Your task to perform on an android device: search for starred emails in the gmail app Image 0: 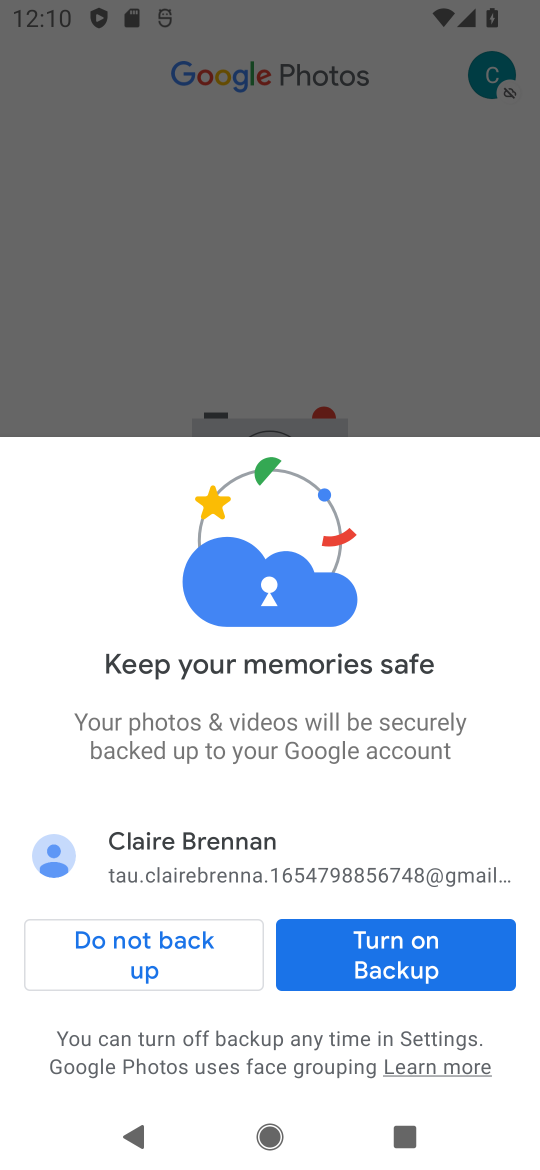
Step 0: press back button
Your task to perform on an android device: search for starred emails in the gmail app Image 1: 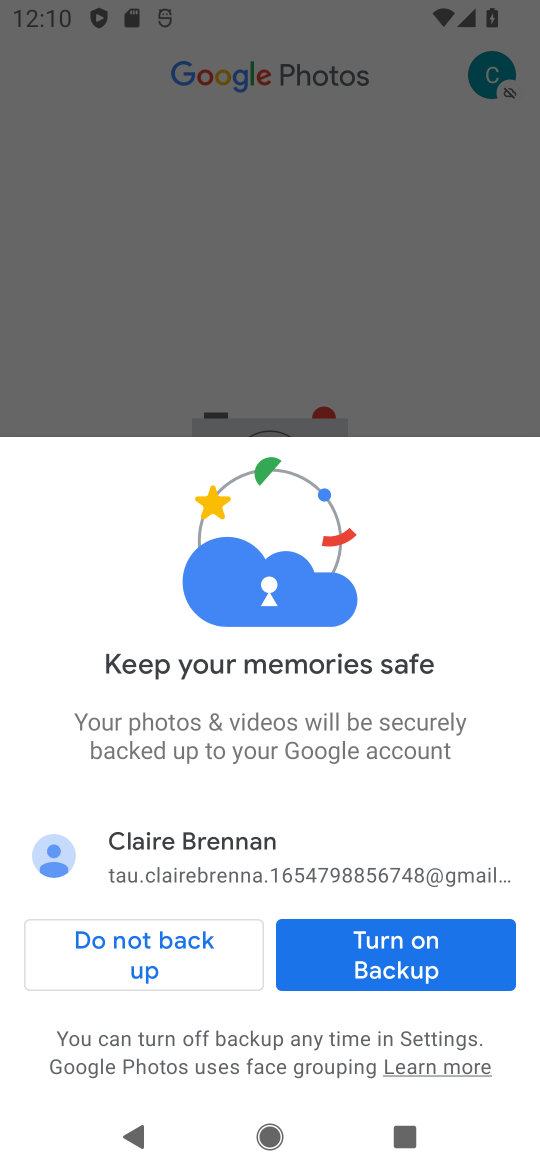
Step 1: press back button
Your task to perform on an android device: search for starred emails in the gmail app Image 2: 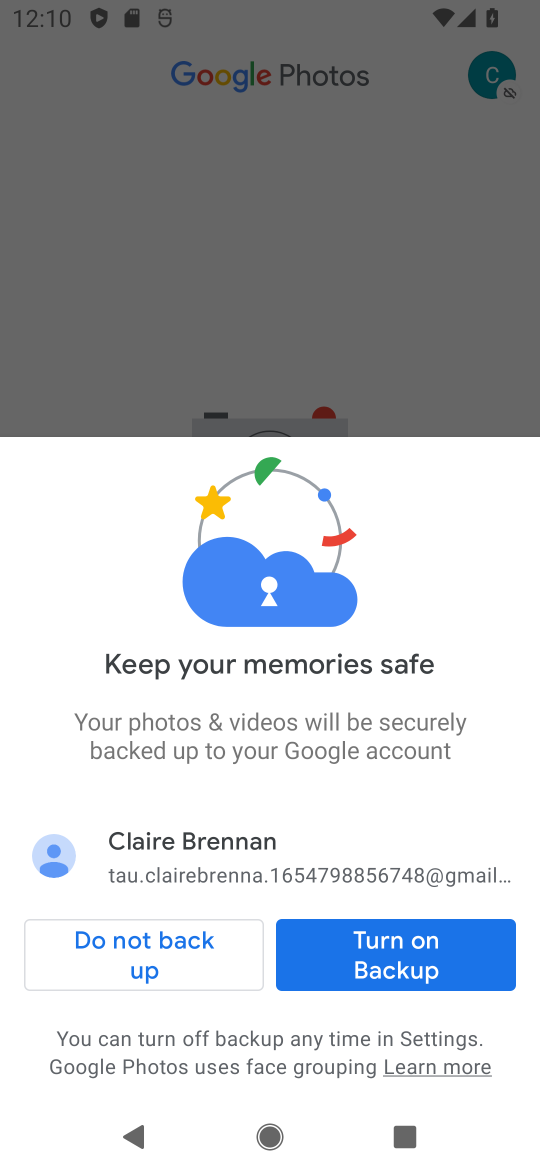
Step 2: press home button
Your task to perform on an android device: search for starred emails in the gmail app Image 3: 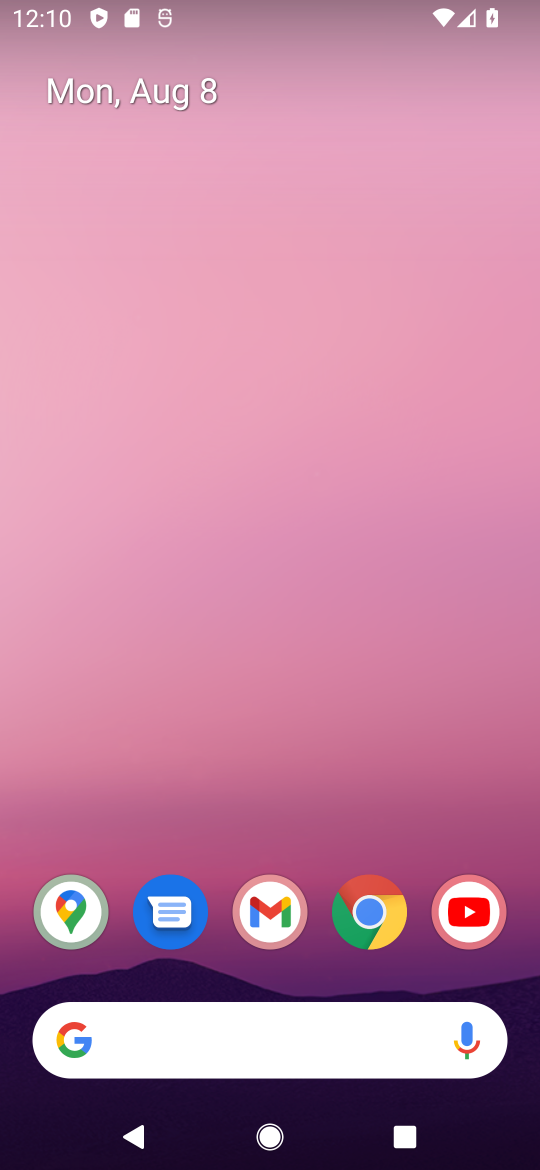
Step 3: click (267, 919)
Your task to perform on an android device: search for starred emails in the gmail app Image 4: 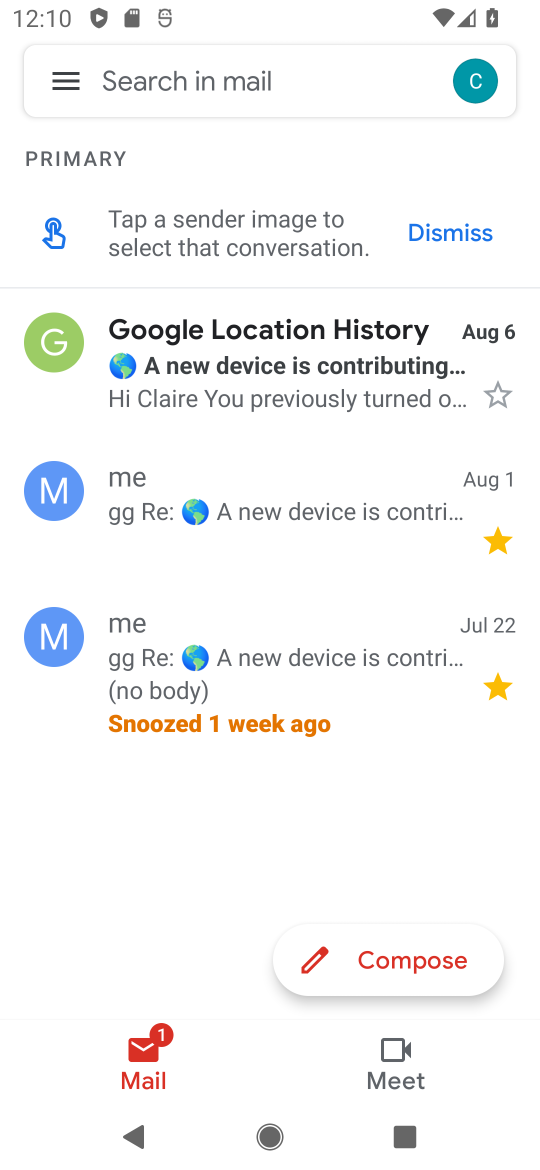
Step 4: click (65, 83)
Your task to perform on an android device: search for starred emails in the gmail app Image 5: 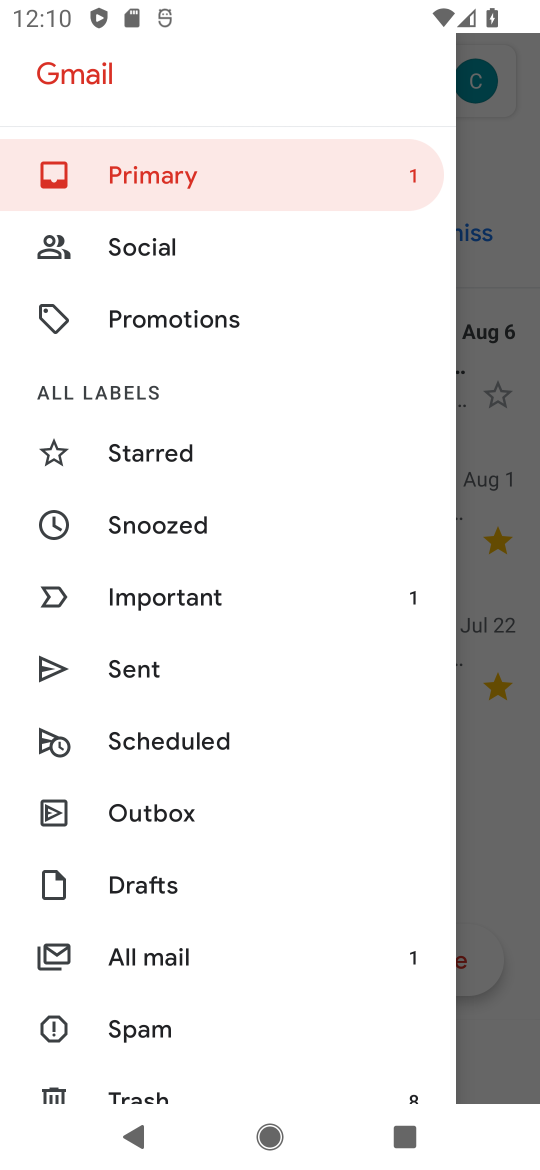
Step 5: click (157, 463)
Your task to perform on an android device: search for starred emails in the gmail app Image 6: 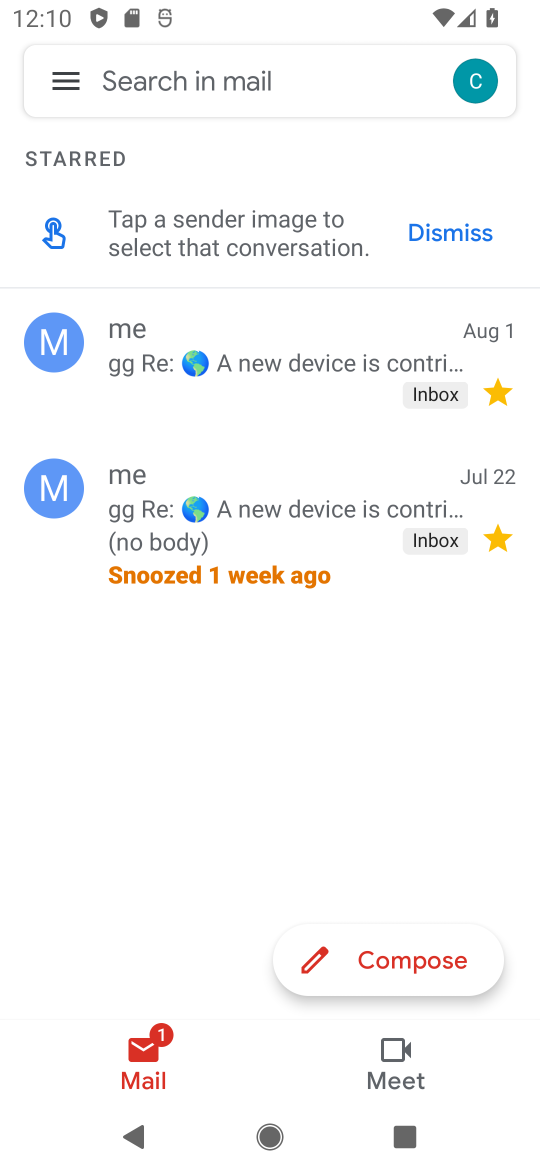
Step 6: task complete